Your task to perform on an android device: Search for apple airpods on target, select the first entry, and add it to the cart. Image 0: 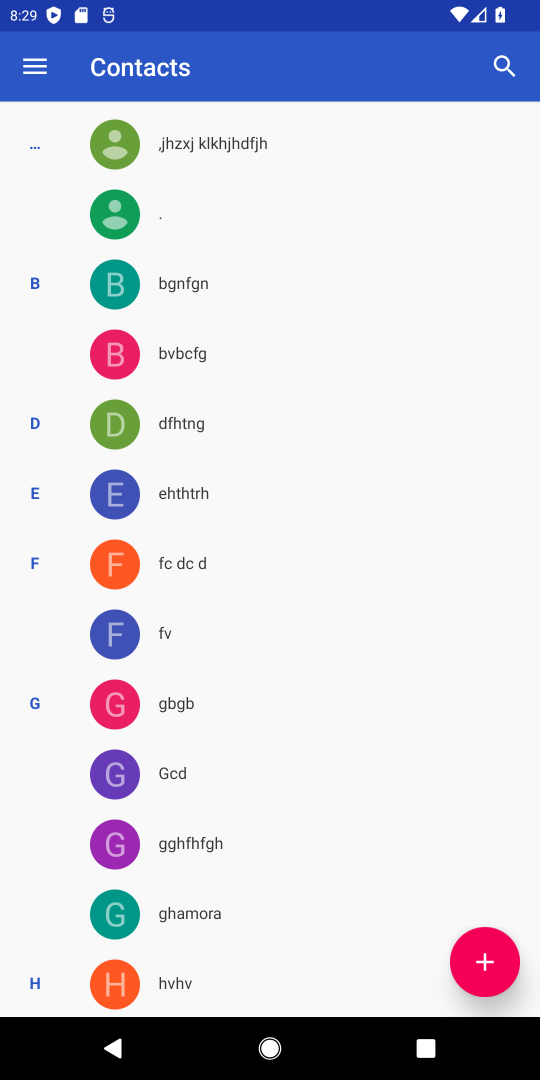
Step 0: press home button
Your task to perform on an android device: Search for apple airpods on target, select the first entry, and add it to the cart. Image 1: 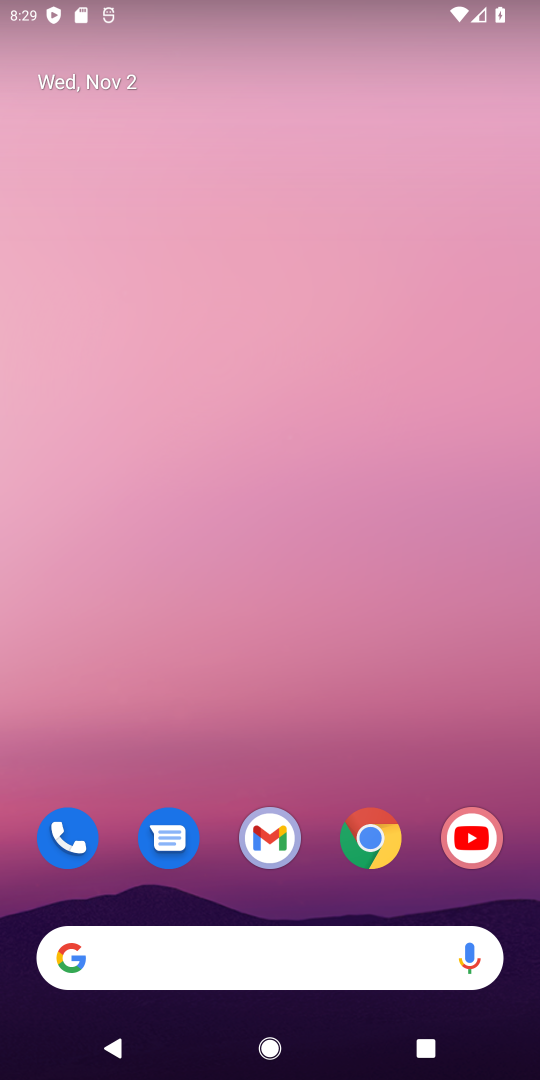
Step 1: click (392, 844)
Your task to perform on an android device: Search for apple airpods on target, select the first entry, and add it to the cart. Image 2: 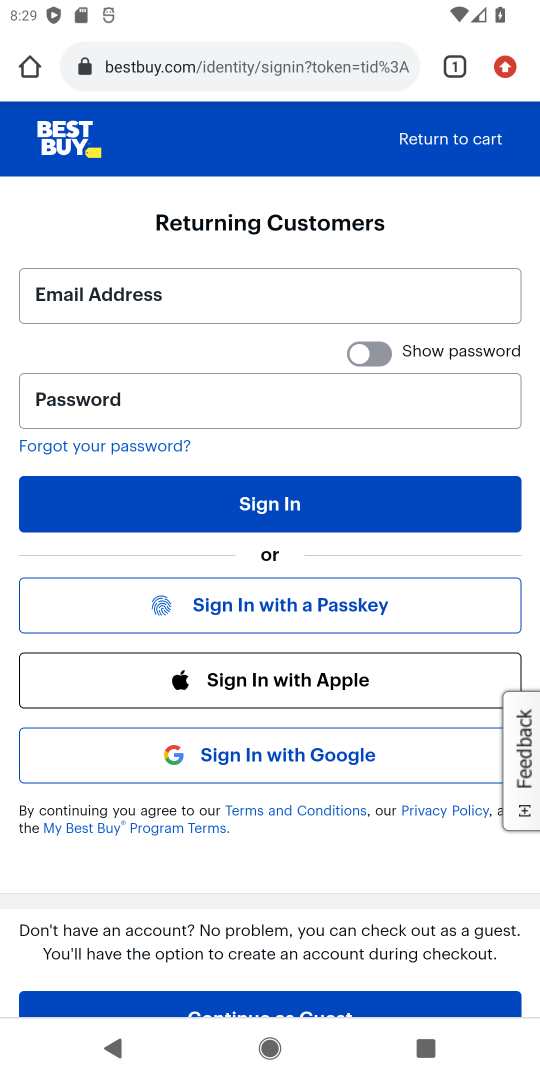
Step 2: click (291, 62)
Your task to perform on an android device: Search for apple airpods on target, select the first entry, and add it to the cart. Image 3: 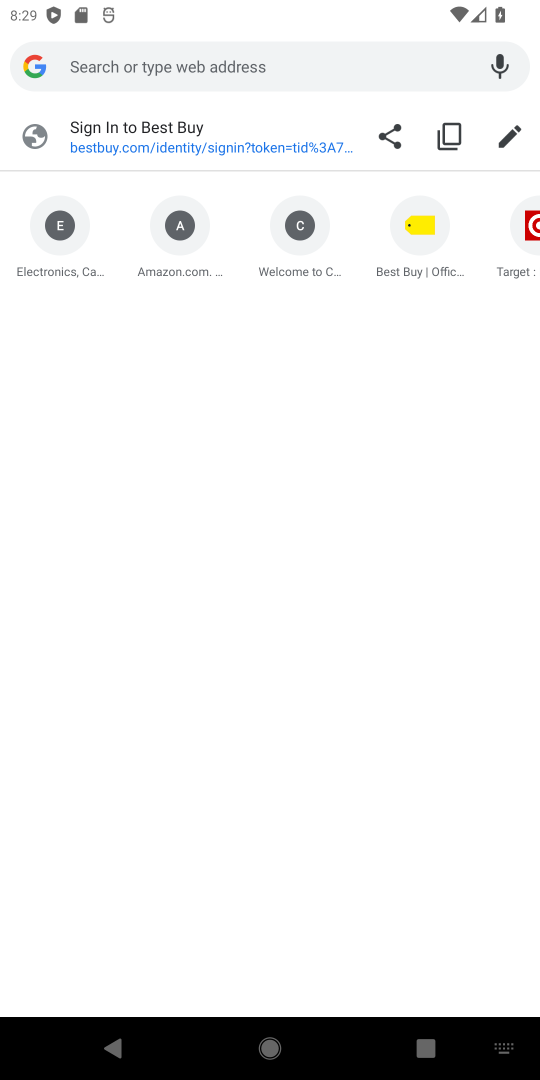
Step 3: type "target"
Your task to perform on an android device: Search for apple airpods on target, select the first entry, and add it to the cart. Image 4: 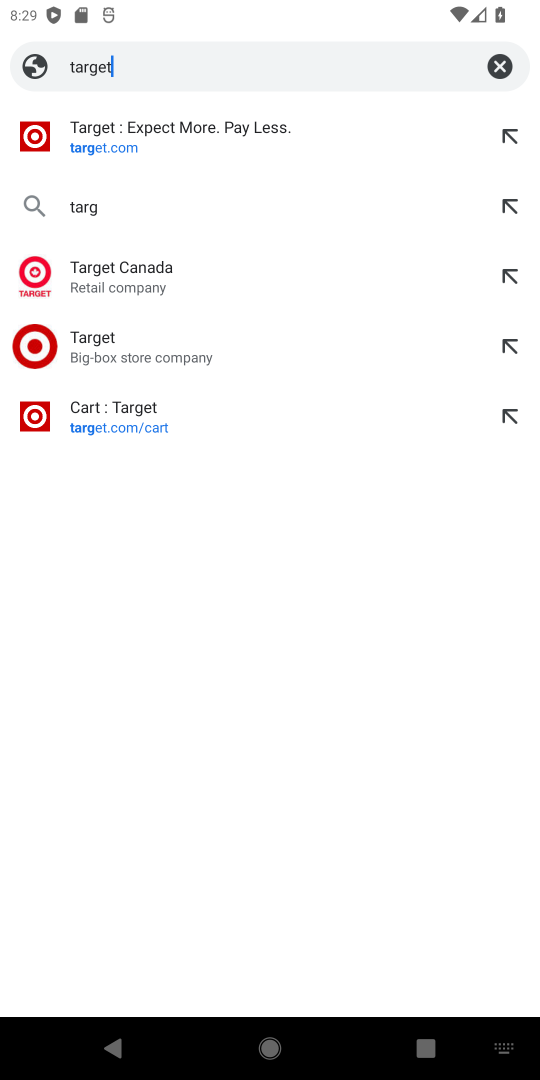
Step 4: type ""
Your task to perform on an android device: Search for apple airpods on target, select the first entry, and add it to the cart. Image 5: 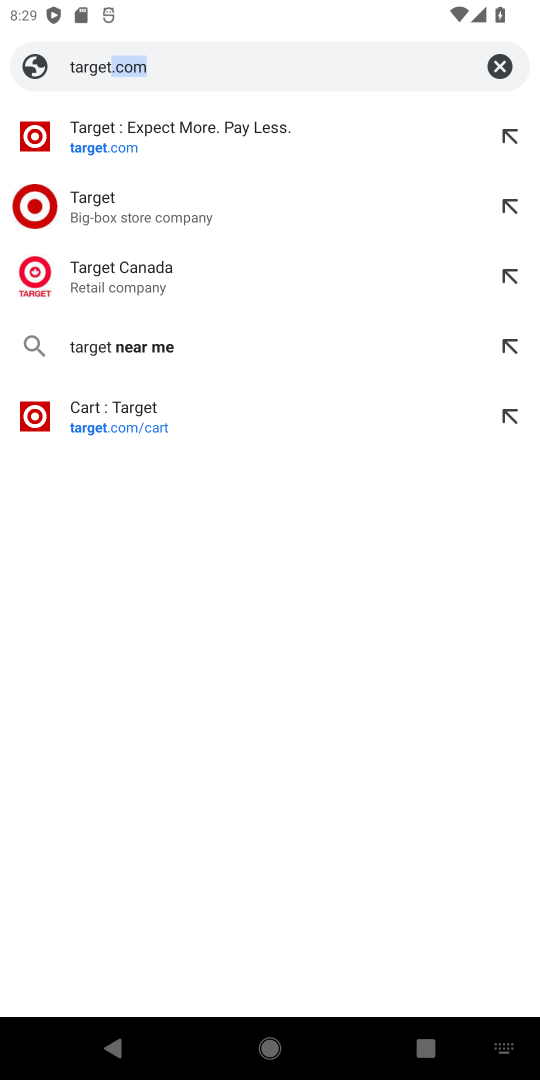
Step 5: press enter
Your task to perform on an android device: Search for apple airpods on target, select the first entry, and add it to the cart. Image 6: 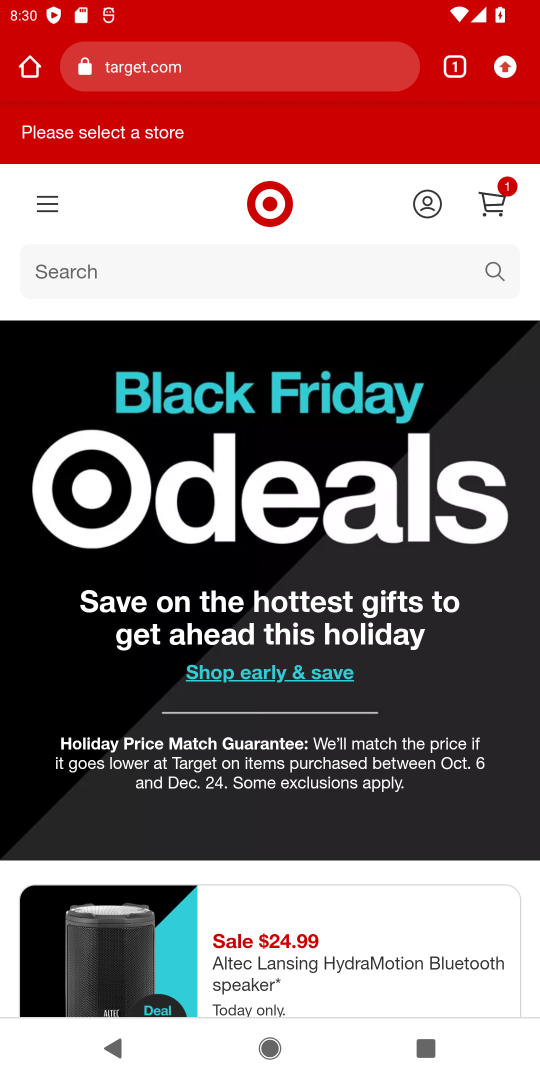
Step 6: click (184, 277)
Your task to perform on an android device: Search for apple airpods on target, select the first entry, and add it to the cart. Image 7: 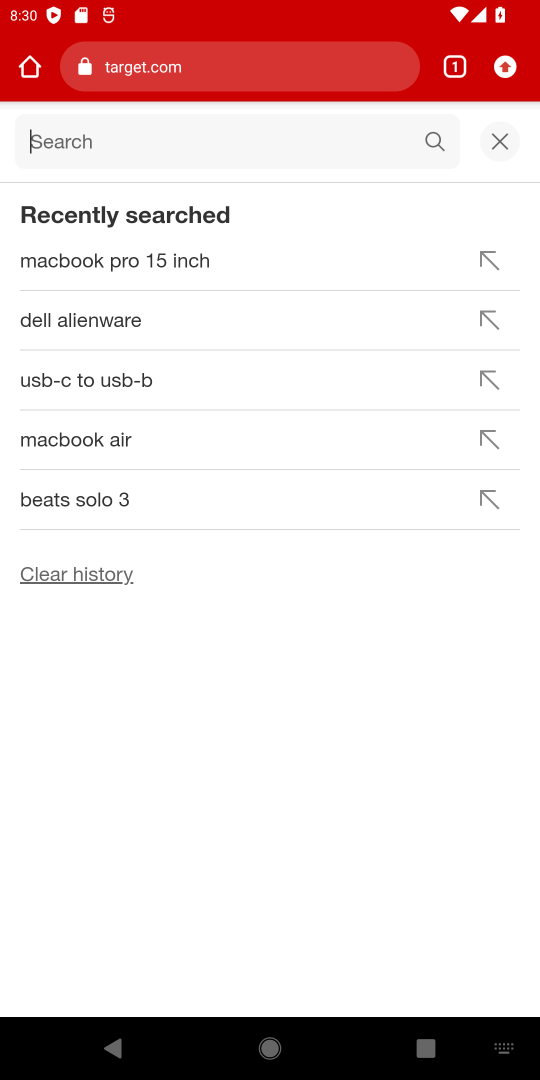
Step 7: type "apple airpods "
Your task to perform on an android device: Search for apple airpods on target, select the first entry, and add it to the cart. Image 8: 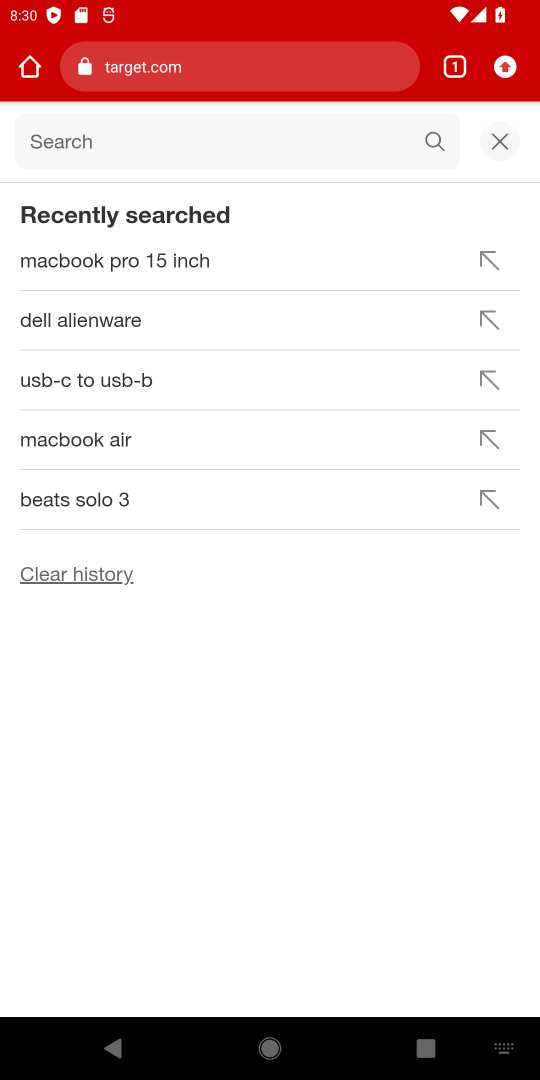
Step 8: type ""
Your task to perform on an android device: Search for apple airpods on target, select the first entry, and add it to the cart. Image 9: 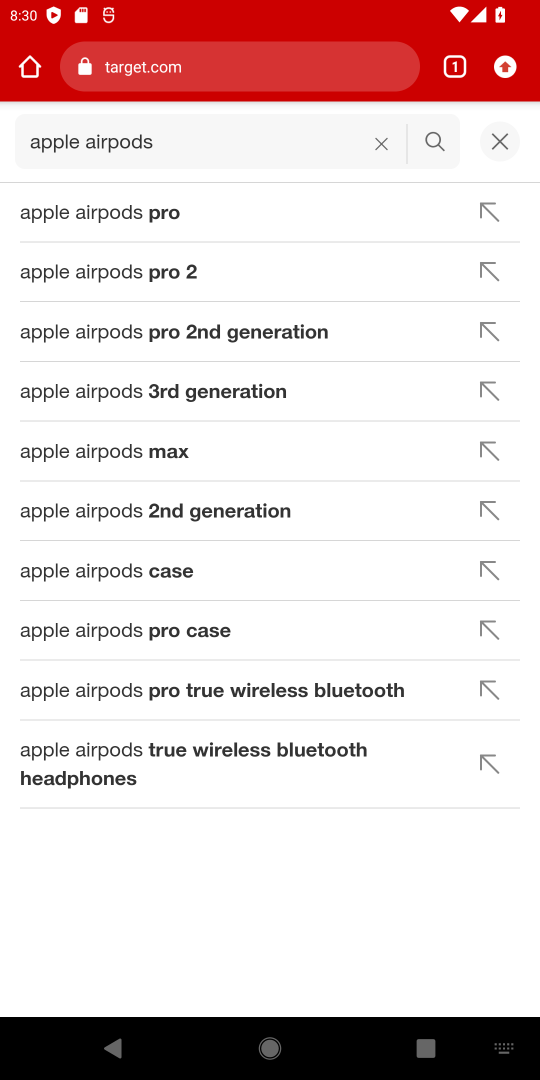
Step 9: press enter
Your task to perform on an android device: Search for apple airpods on target, select the first entry, and add it to the cart. Image 10: 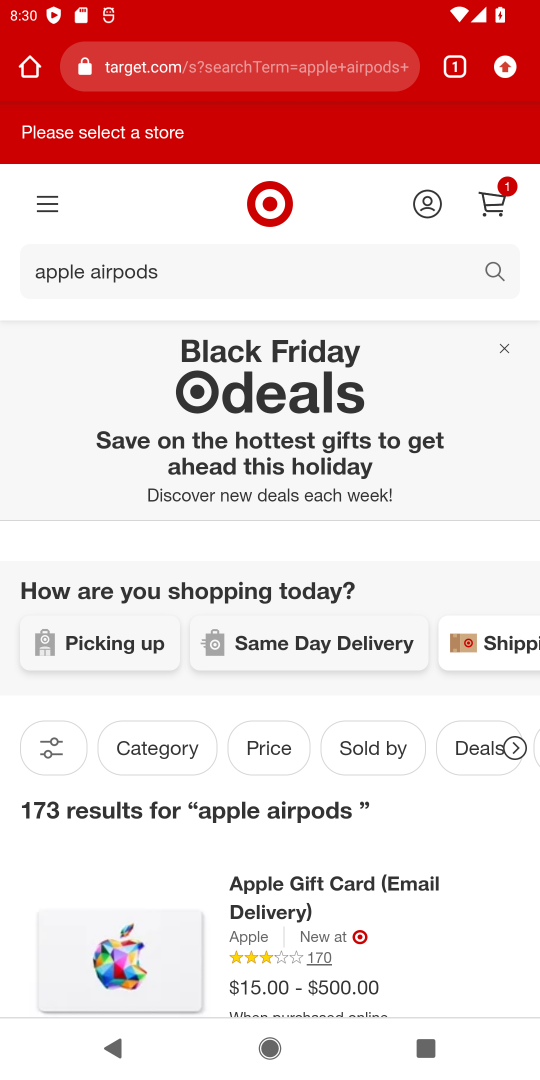
Step 10: drag from (228, 805) to (241, 432)
Your task to perform on an android device: Search for apple airpods on target, select the first entry, and add it to the cart. Image 11: 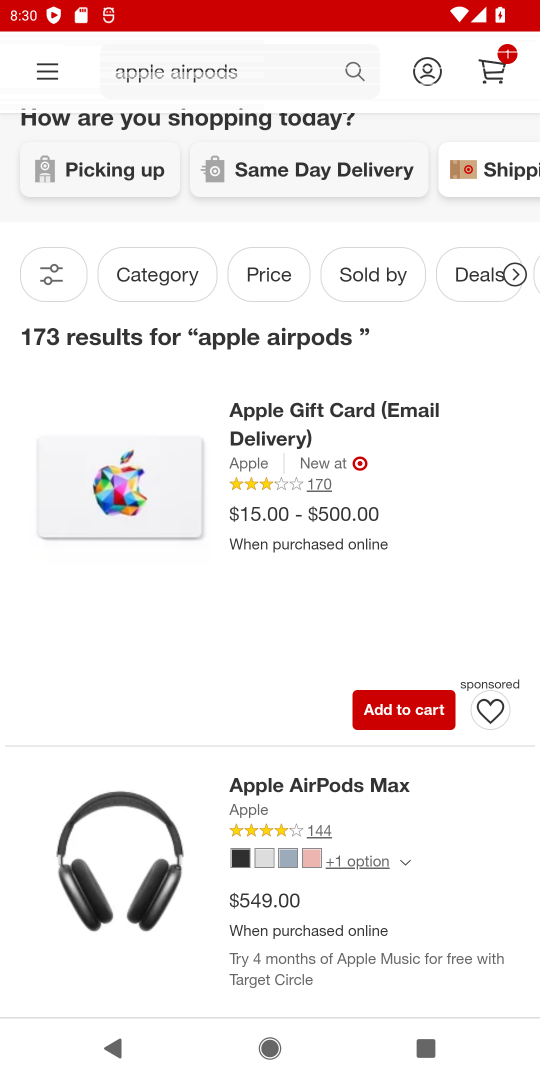
Step 11: click (295, 787)
Your task to perform on an android device: Search for apple airpods on target, select the first entry, and add it to the cart. Image 12: 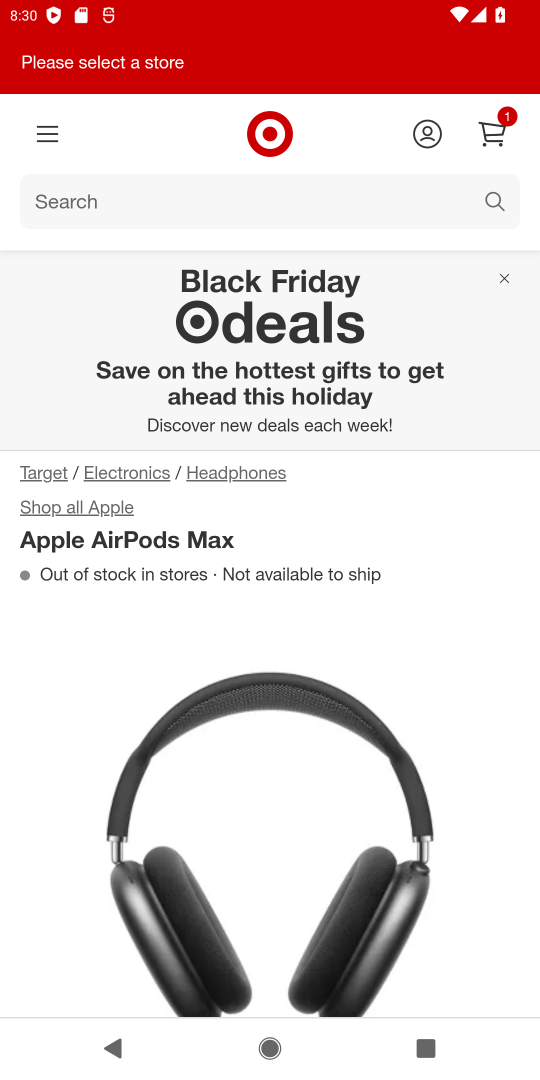
Step 12: drag from (341, 850) to (340, 222)
Your task to perform on an android device: Search for apple airpods on target, select the first entry, and add it to the cart. Image 13: 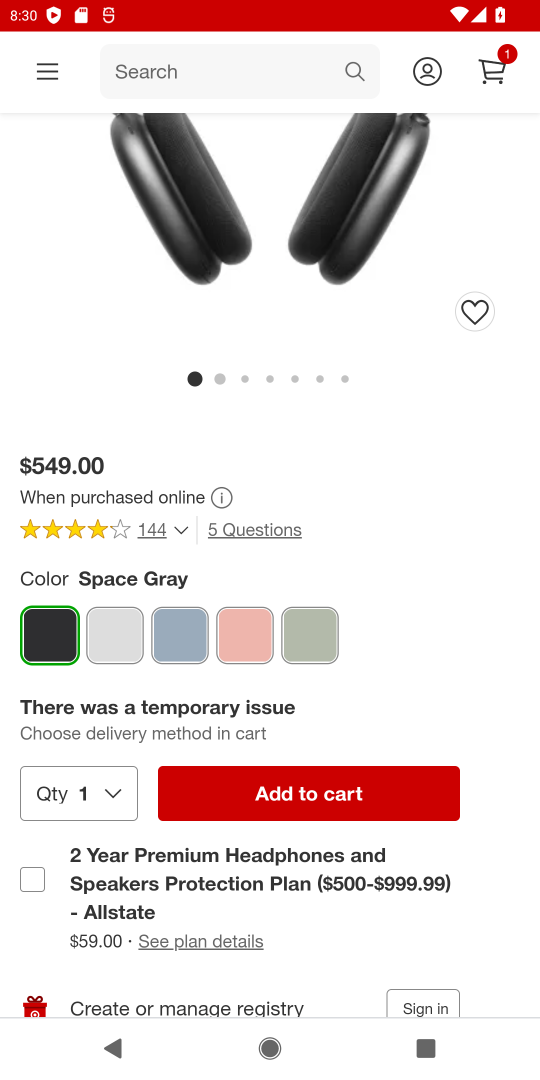
Step 13: click (351, 776)
Your task to perform on an android device: Search for apple airpods on target, select the first entry, and add it to the cart. Image 14: 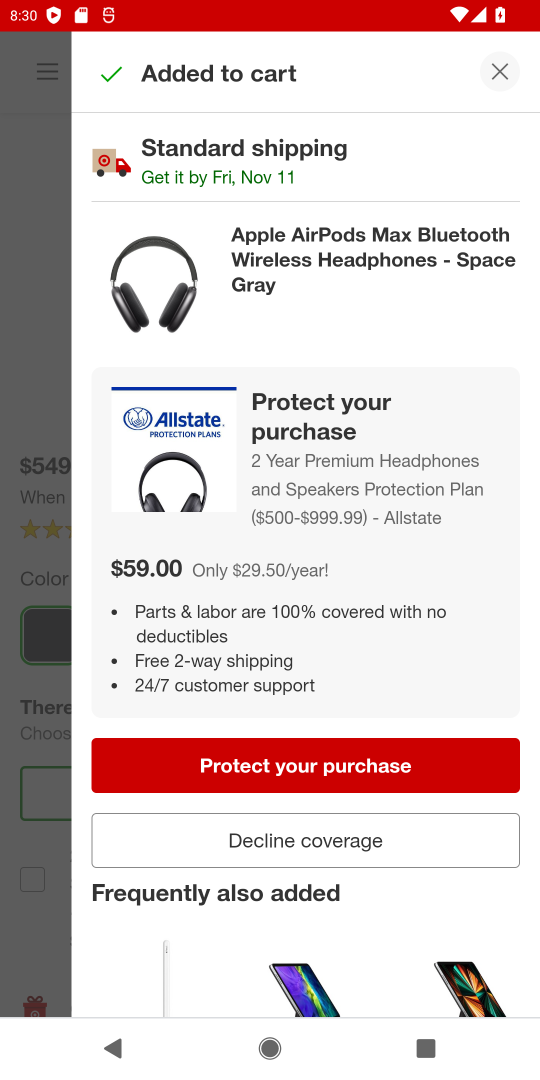
Step 14: click (345, 844)
Your task to perform on an android device: Search for apple airpods on target, select the first entry, and add it to the cart. Image 15: 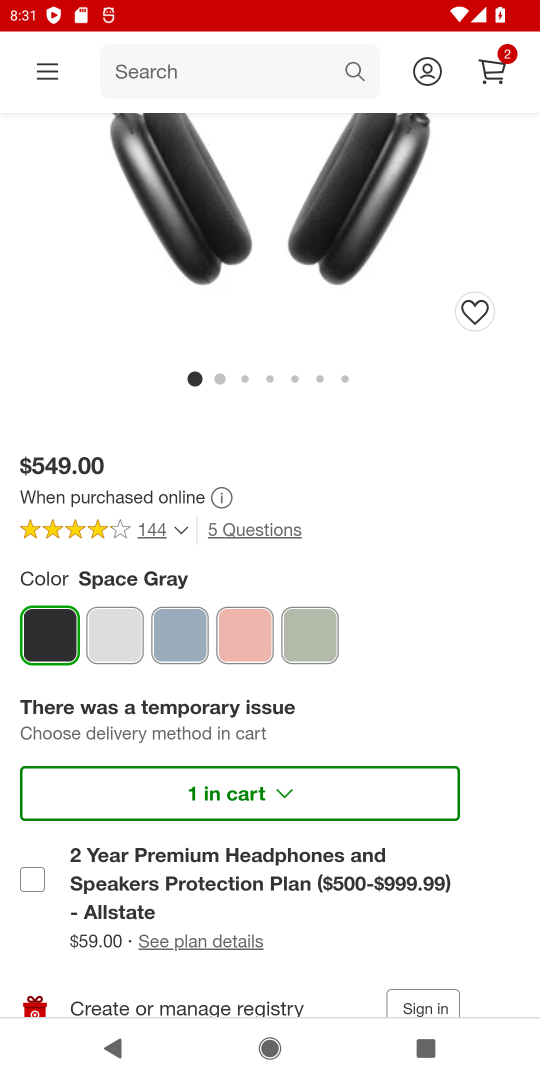
Step 15: task complete